Your task to perform on an android device: Check the weather Image 0: 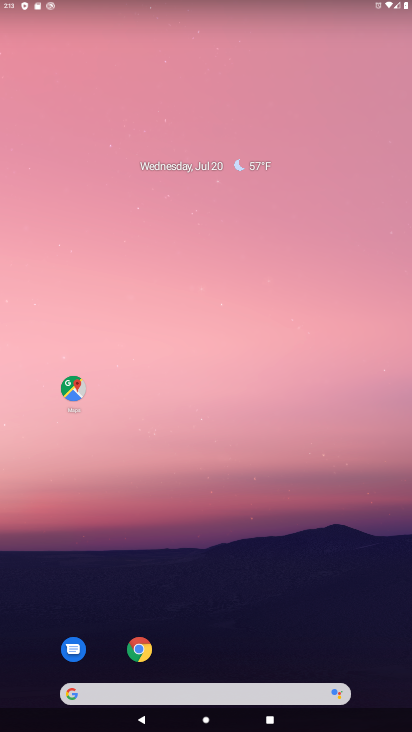
Step 0: click (170, 694)
Your task to perform on an android device: Check the weather Image 1: 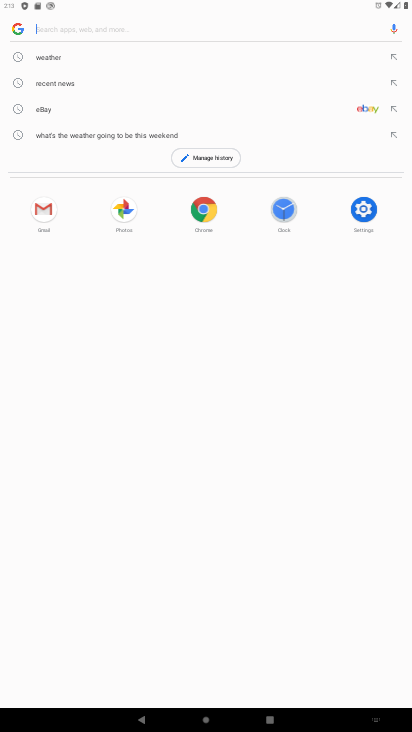
Step 1: click (77, 57)
Your task to perform on an android device: Check the weather Image 2: 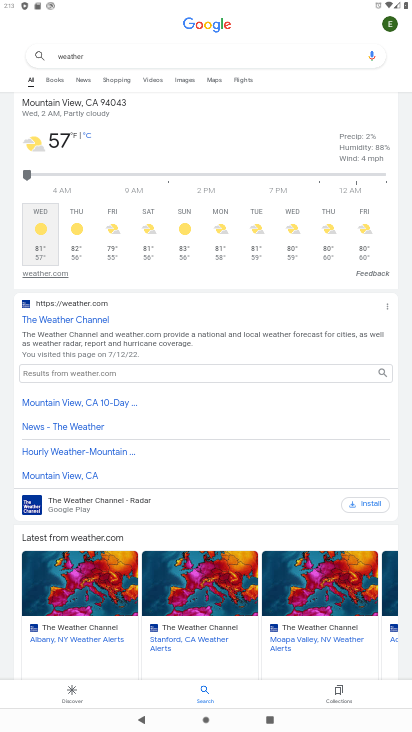
Step 2: task complete